Your task to perform on an android device: Open Google Image 0: 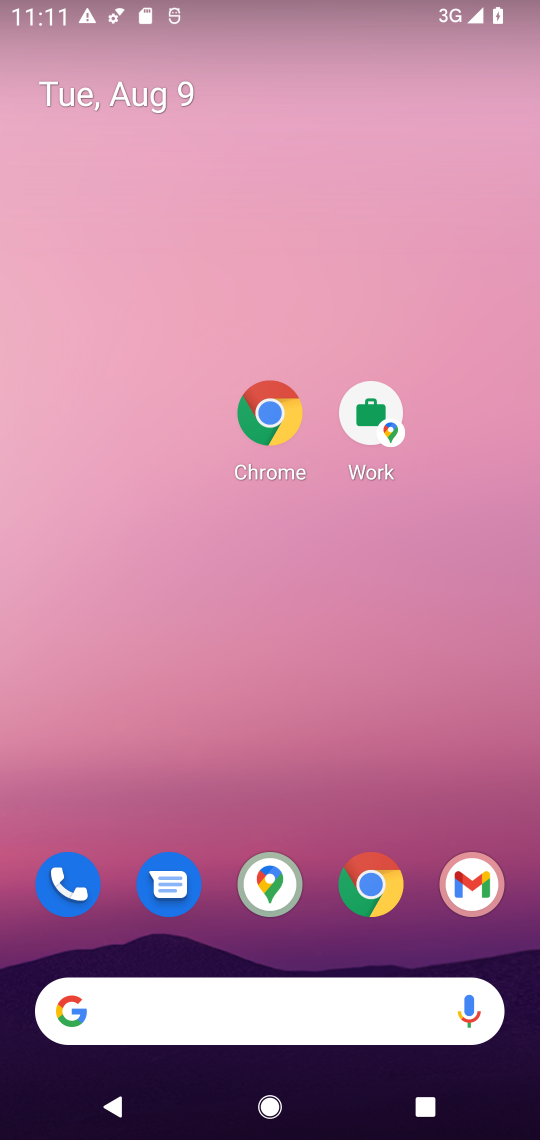
Step 0: click (3, 408)
Your task to perform on an android device: Open Google Image 1: 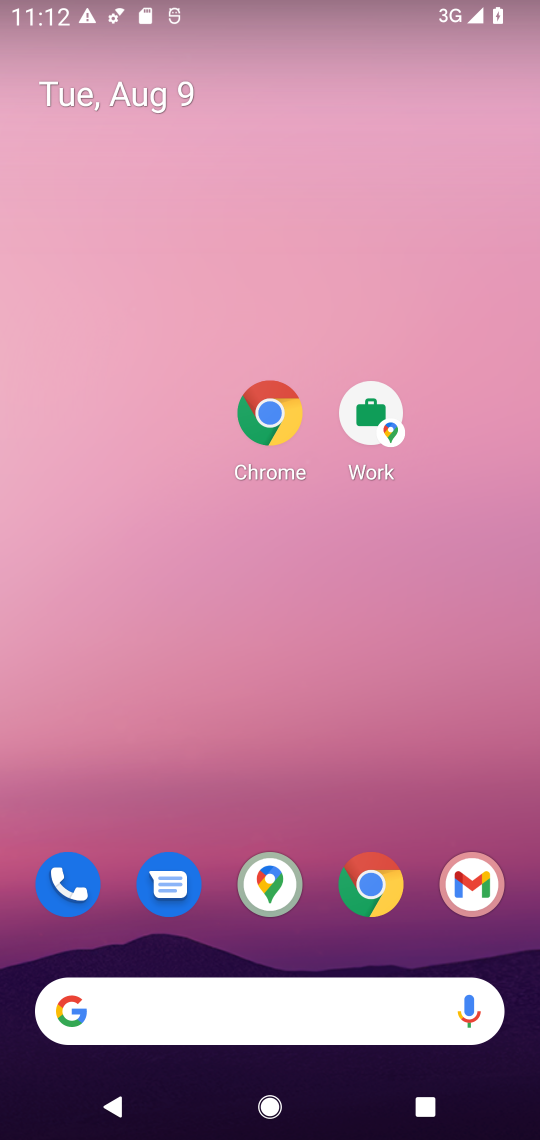
Step 1: drag from (249, 873) to (253, 411)
Your task to perform on an android device: Open Google Image 2: 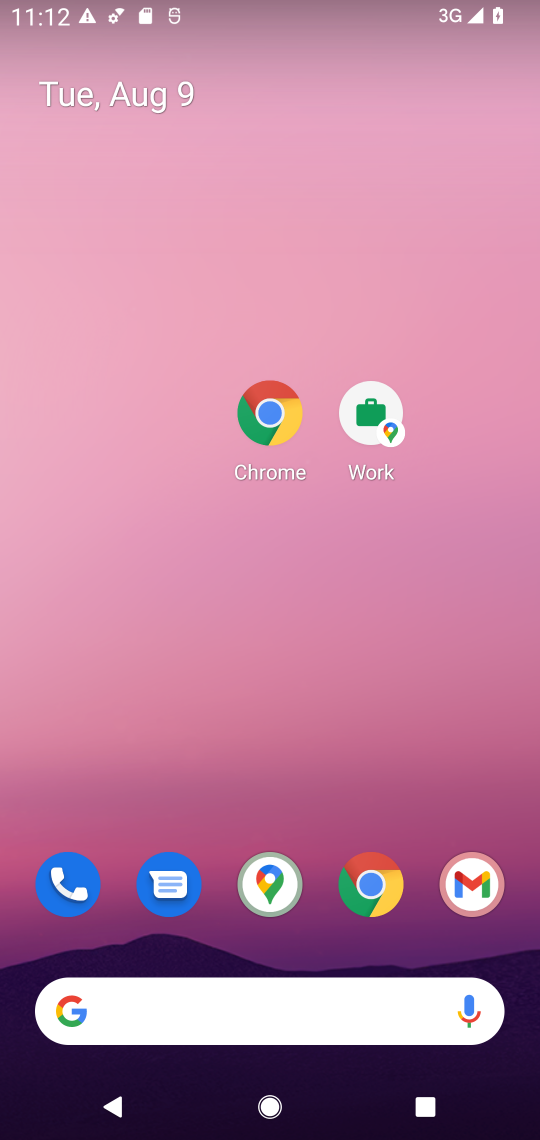
Step 2: drag from (332, 505) to (290, 368)
Your task to perform on an android device: Open Google Image 3: 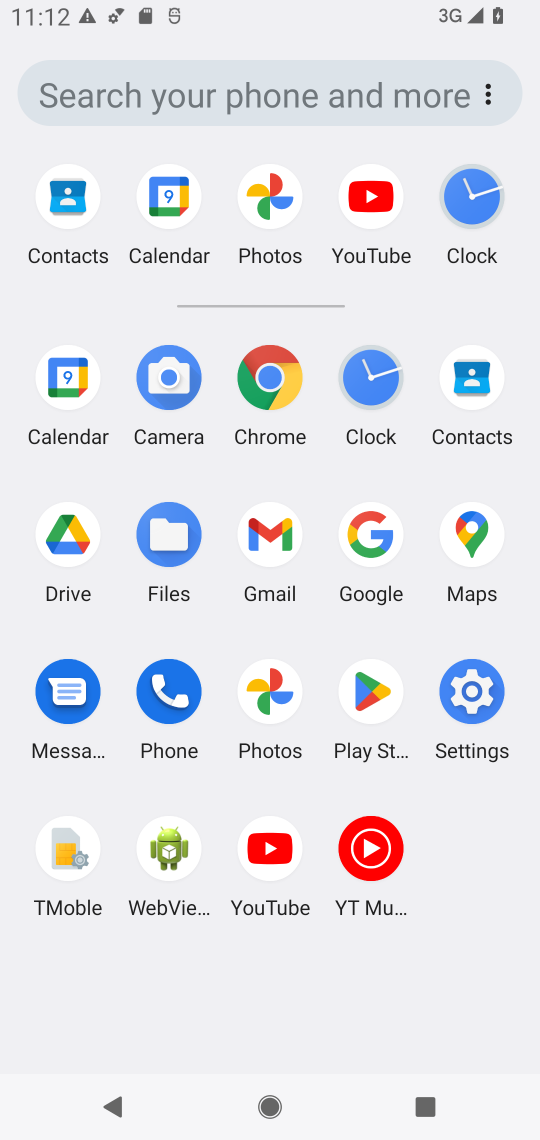
Step 3: click (372, 537)
Your task to perform on an android device: Open Google Image 4: 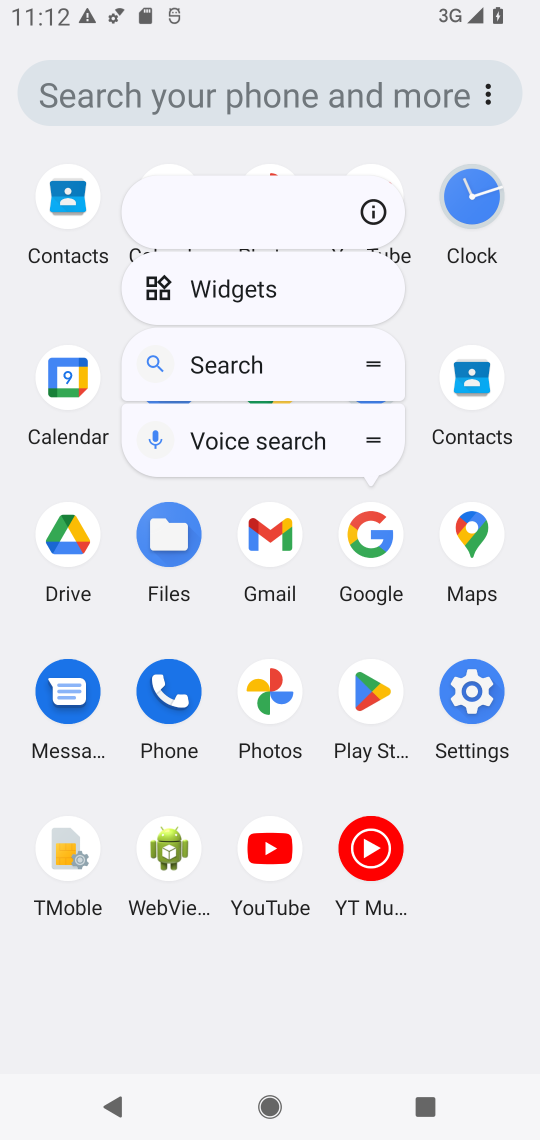
Step 4: click (374, 541)
Your task to perform on an android device: Open Google Image 5: 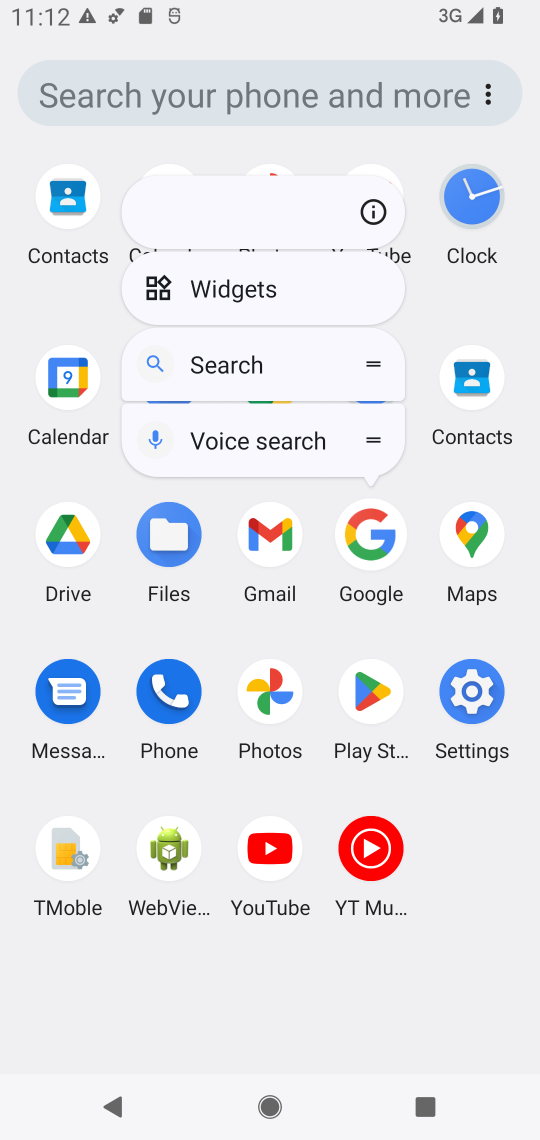
Step 5: click (375, 557)
Your task to perform on an android device: Open Google Image 6: 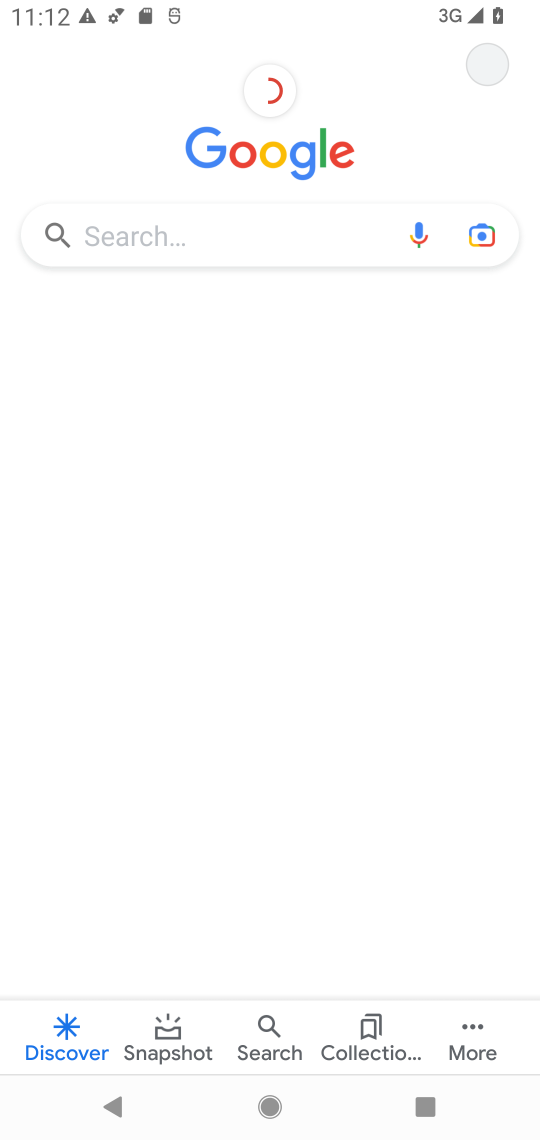
Step 6: task complete